Your task to perform on an android device: open chrome and create a bookmark for the current page Image 0: 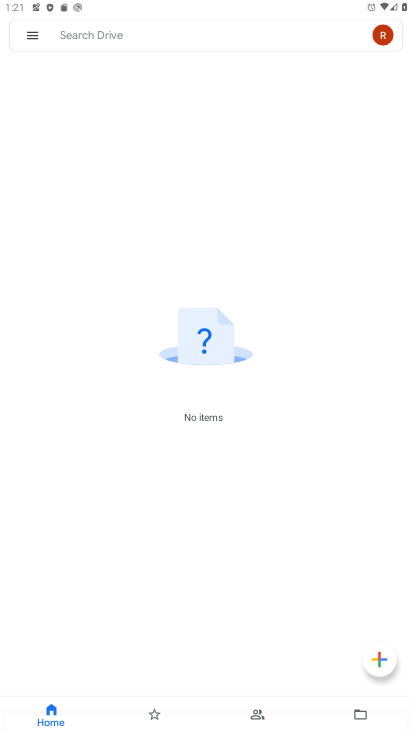
Step 0: press home button
Your task to perform on an android device: open chrome and create a bookmark for the current page Image 1: 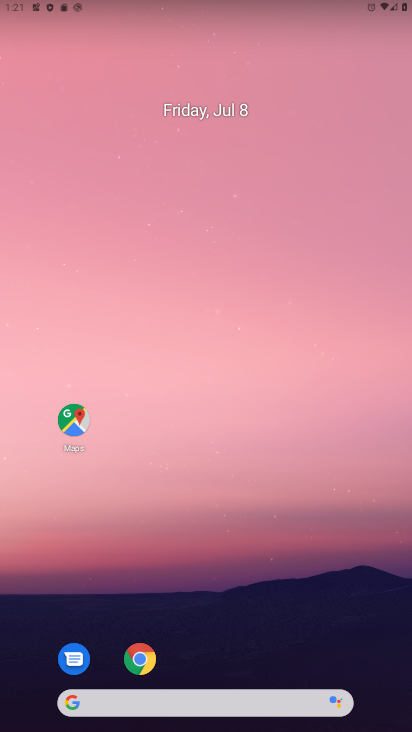
Step 1: click (138, 660)
Your task to perform on an android device: open chrome and create a bookmark for the current page Image 2: 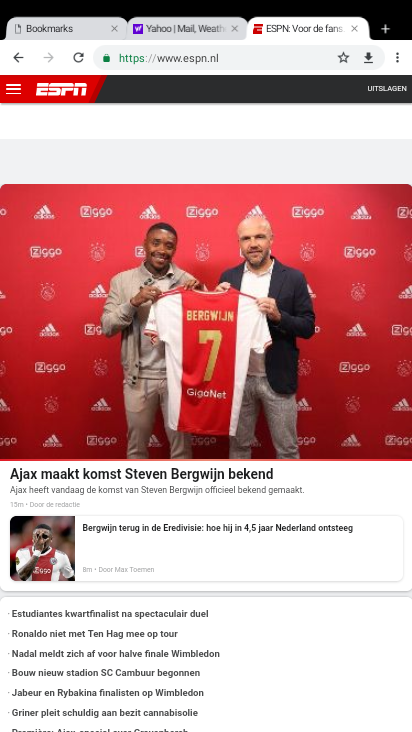
Step 2: click (392, 53)
Your task to perform on an android device: open chrome and create a bookmark for the current page Image 3: 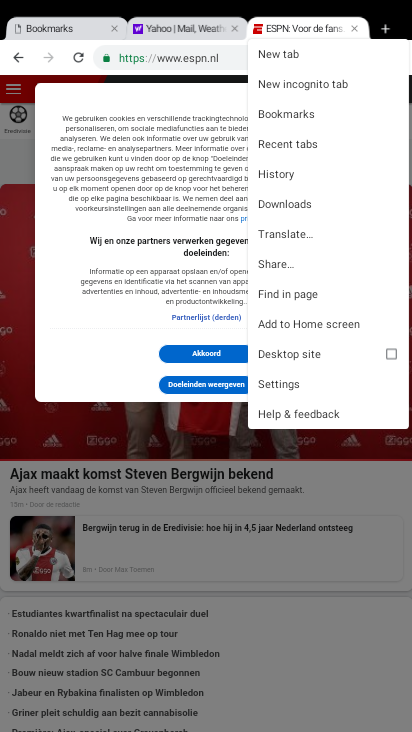
Step 3: click (222, 99)
Your task to perform on an android device: open chrome and create a bookmark for the current page Image 4: 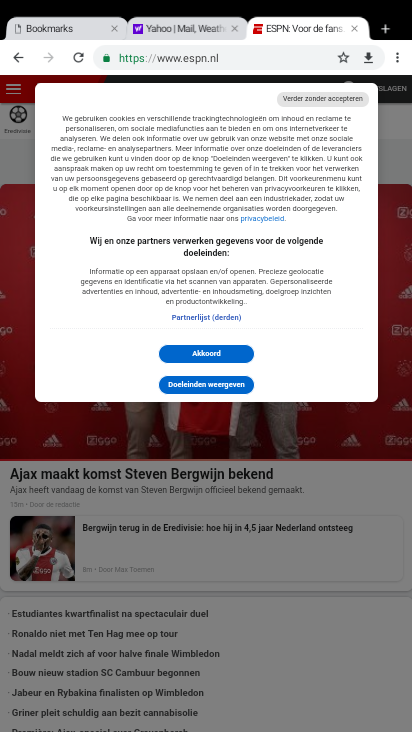
Step 4: click (342, 56)
Your task to perform on an android device: open chrome and create a bookmark for the current page Image 5: 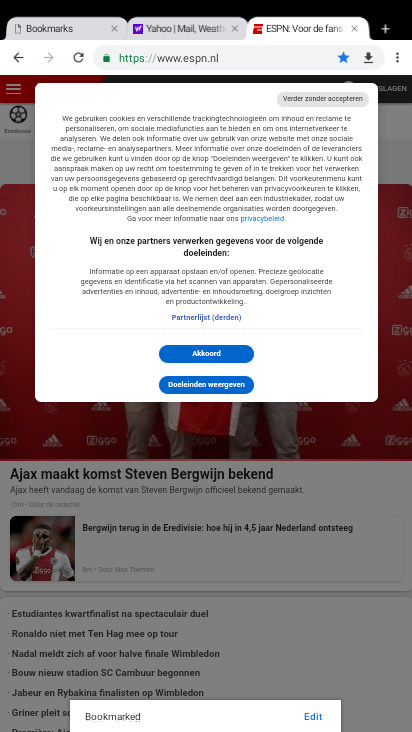
Step 5: task complete